Your task to perform on an android device: toggle priority inbox in the gmail app Image 0: 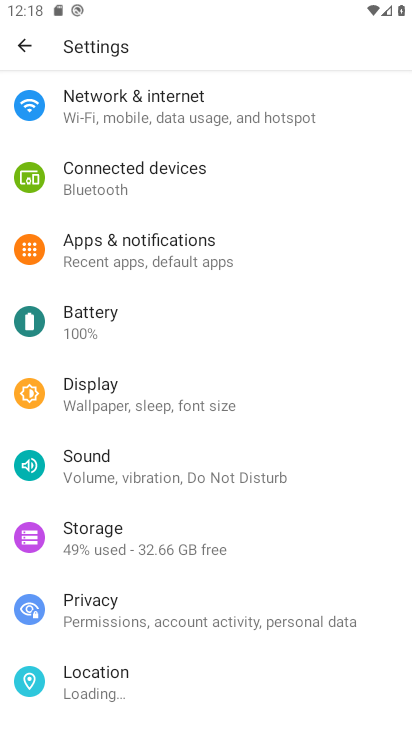
Step 0: press home button
Your task to perform on an android device: toggle priority inbox in the gmail app Image 1: 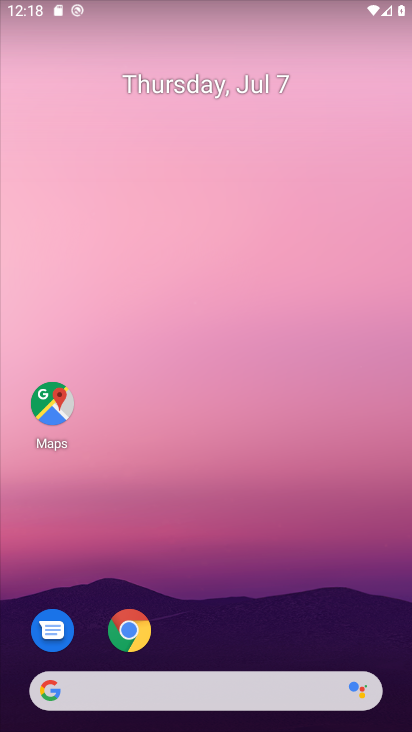
Step 1: drag from (227, 638) to (226, 237)
Your task to perform on an android device: toggle priority inbox in the gmail app Image 2: 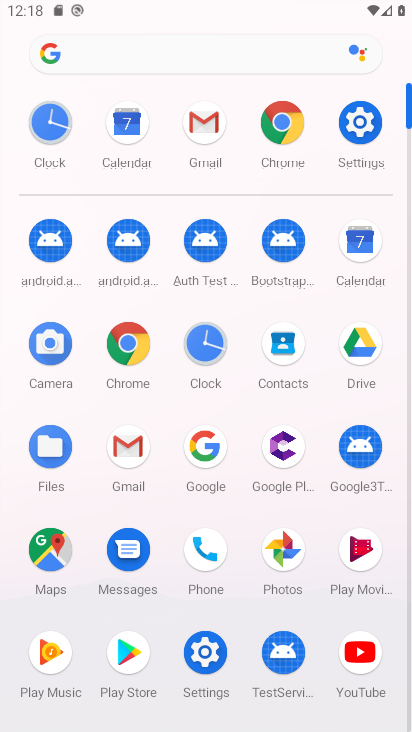
Step 2: click (207, 118)
Your task to perform on an android device: toggle priority inbox in the gmail app Image 3: 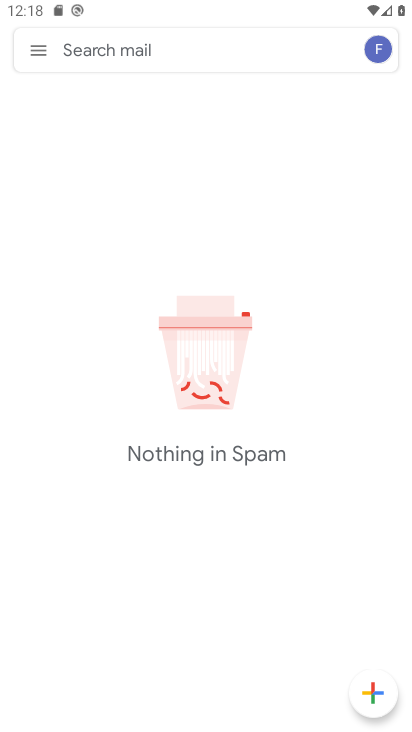
Step 3: click (42, 48)
Your task to perform on an android device: toggle priority inbox in the gmail app Image 4: 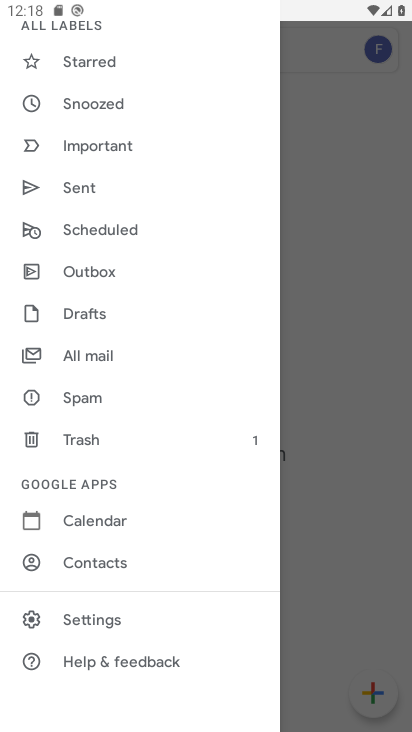
Step 4: click (349, 223)
Your task to perform on an android device: toggle priority inbox in the gmail app Image 5: 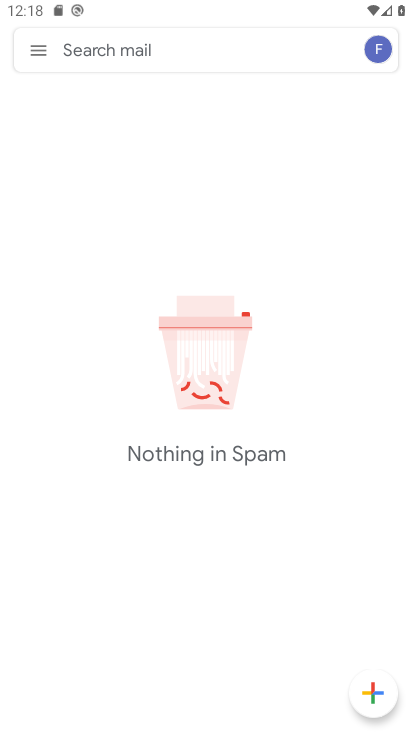
Step 5: click (40, 46)
Your task to perform on an android device: toggle priority inbox in the gmail app Image 6: 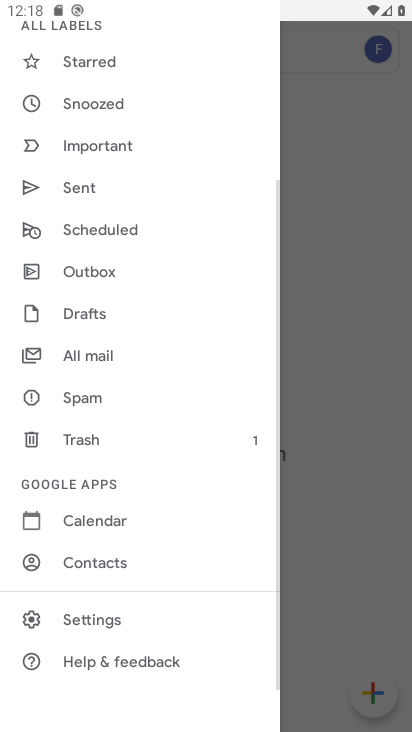
Step 6: click (132, 614)
Your task to perform on an android device: toggle priority inbox in the gmail app Image 7: 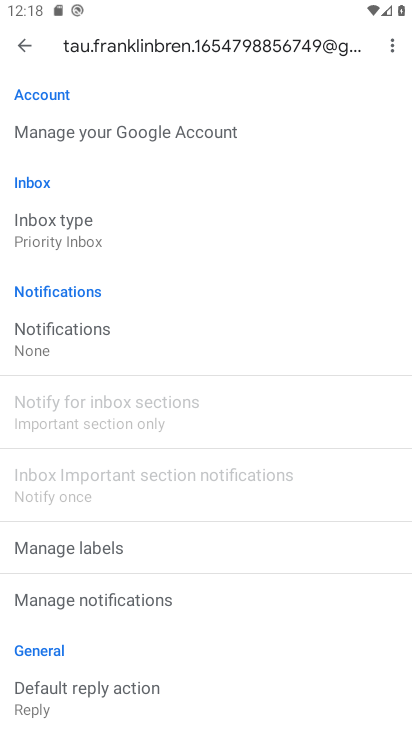
Step 7: click (84, 244)
Your task to perform on an android device: toggle priority inbox in the gmail app Image 8: 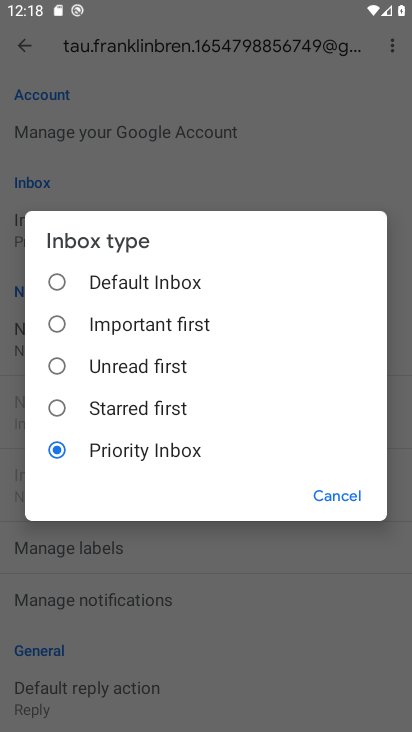
Step 8: task complete